Your task to perform on an android device: Open Wikipedia Image 0: 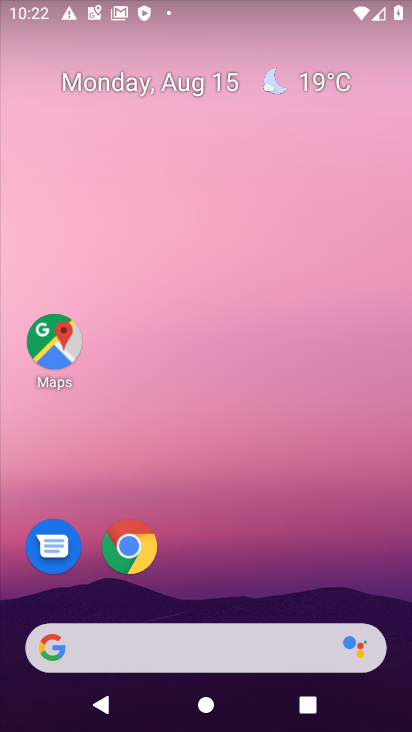
Step 0: press home button
Your task to perform on an android device: Open Wikipedia Image 1: 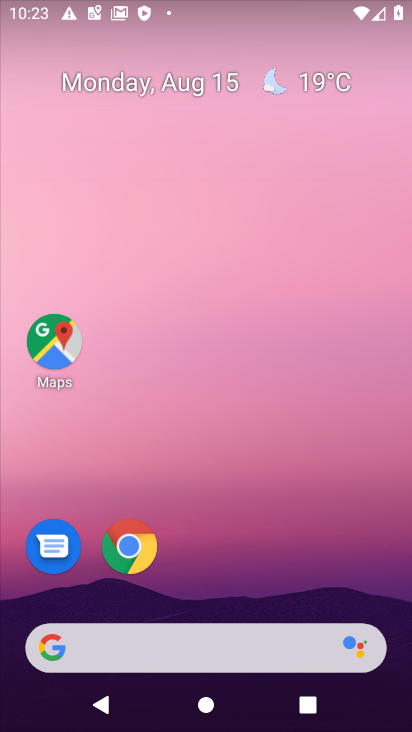
Step 1: click (127, 548)
Your task to perform on an android device: Open Wikipedia Image 2: 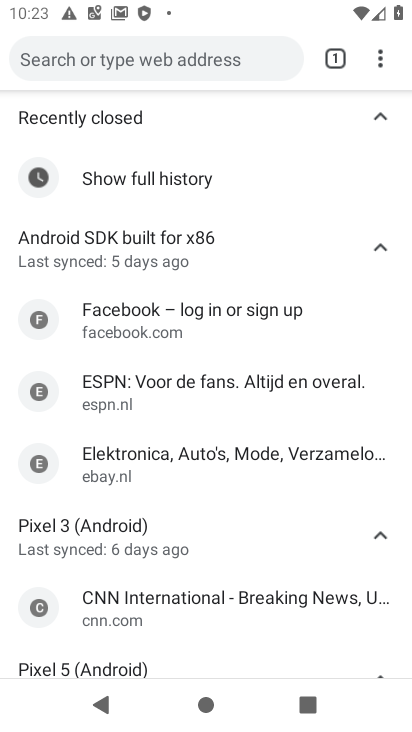
Step 2: drag from (381, 59) to (151, 117)
Your task to perform on an android device: Open Wikipedia Image 3: 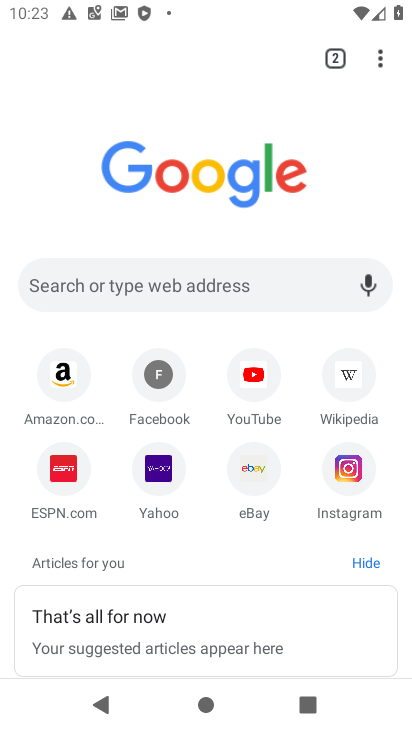
Step 3: click (350, 377)
Your task to perform on an android device: Open Wikipedia Image 4: 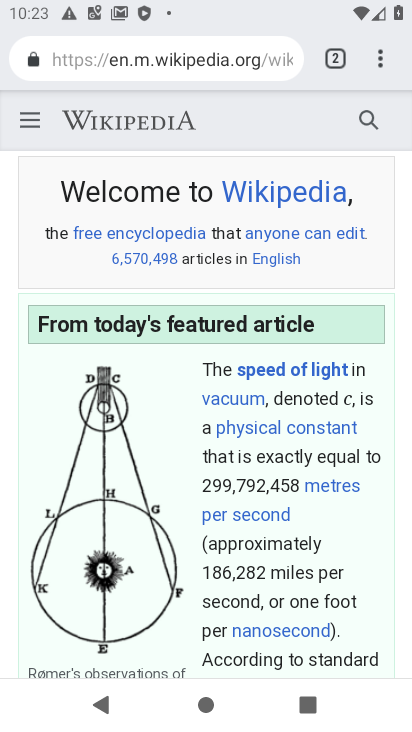
Step 4: task complete